Your task to perform on an android device: refresh tabs in the chrome app Image 0: 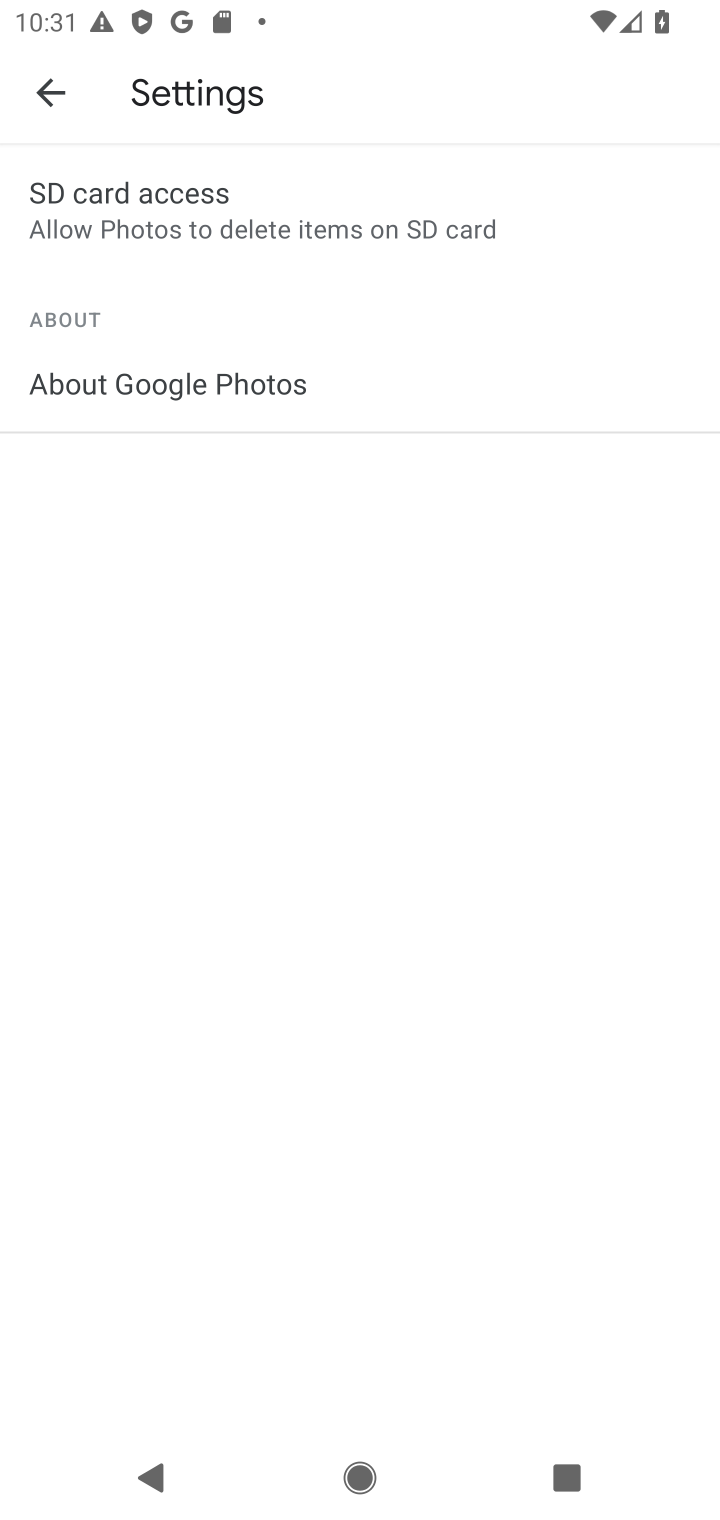
Step 0: press home button
Your task to perform on an android device: refresh tabs in the chrome app Image 1: 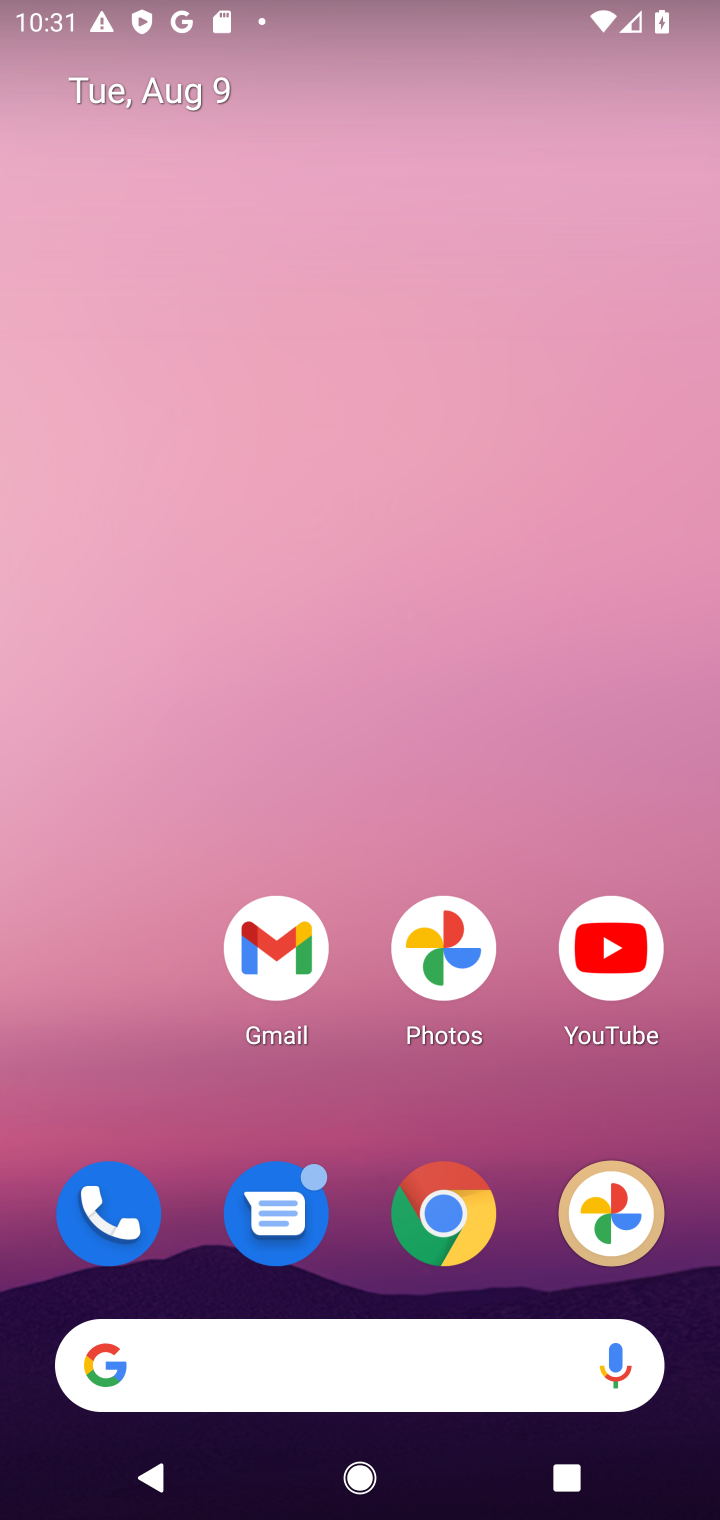
Step 1: click (440, 1203)
Your task to perform on an android device: refresh tabs in the chrome app Image 2: 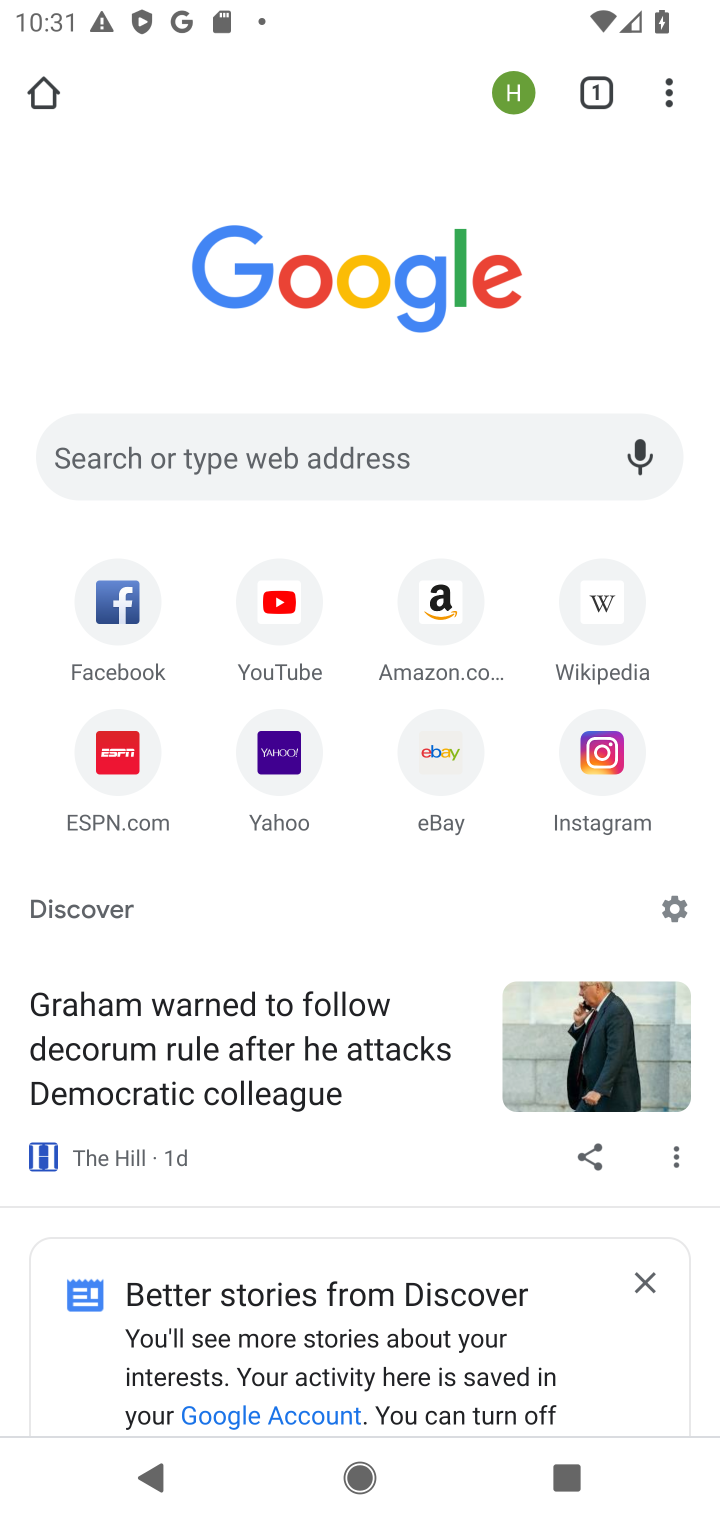
Step 2: click (685, 95)
Your task to perform on an android device: refresh tabs in the chrome app Image 3: 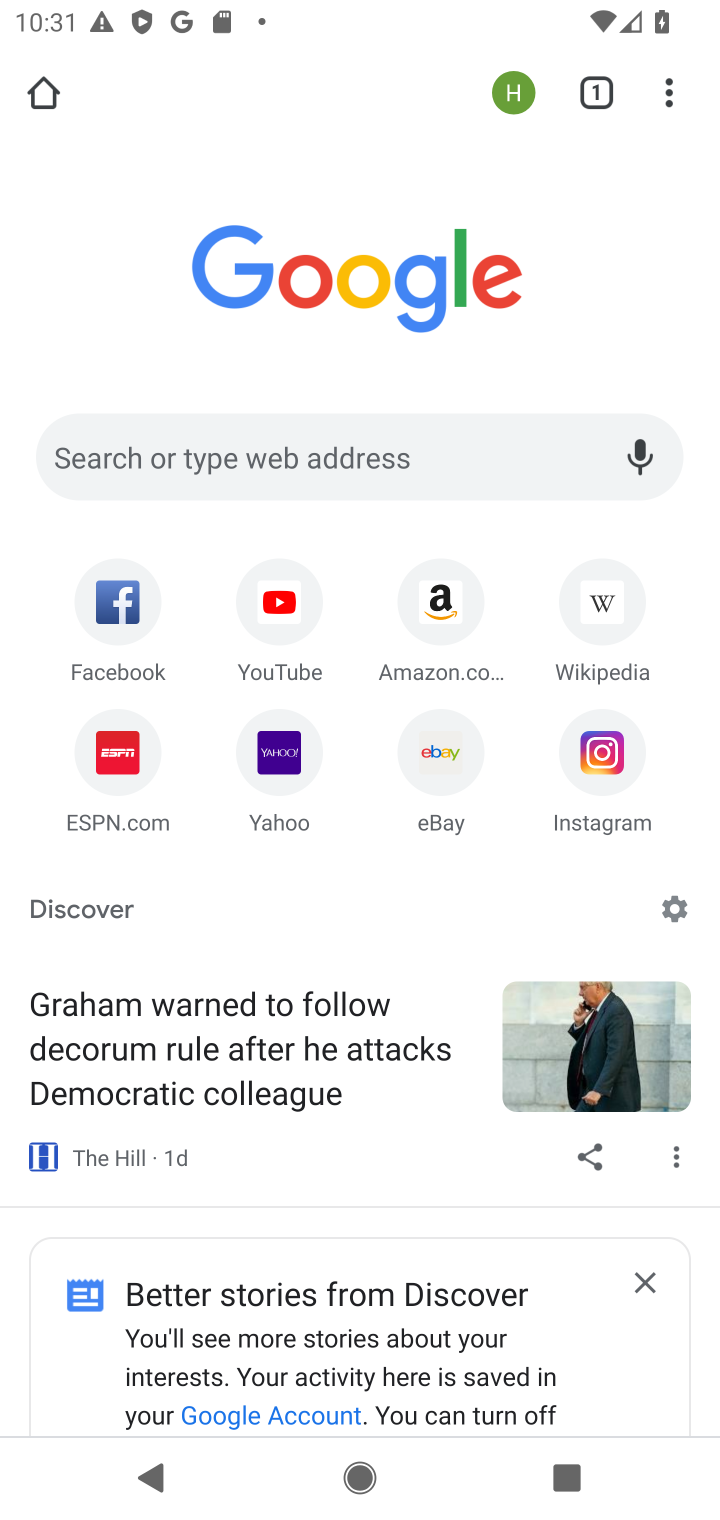
Step 3: click (678, 81)
Your task to perform on an android device: refresh tabs in the chrome app Image 4: 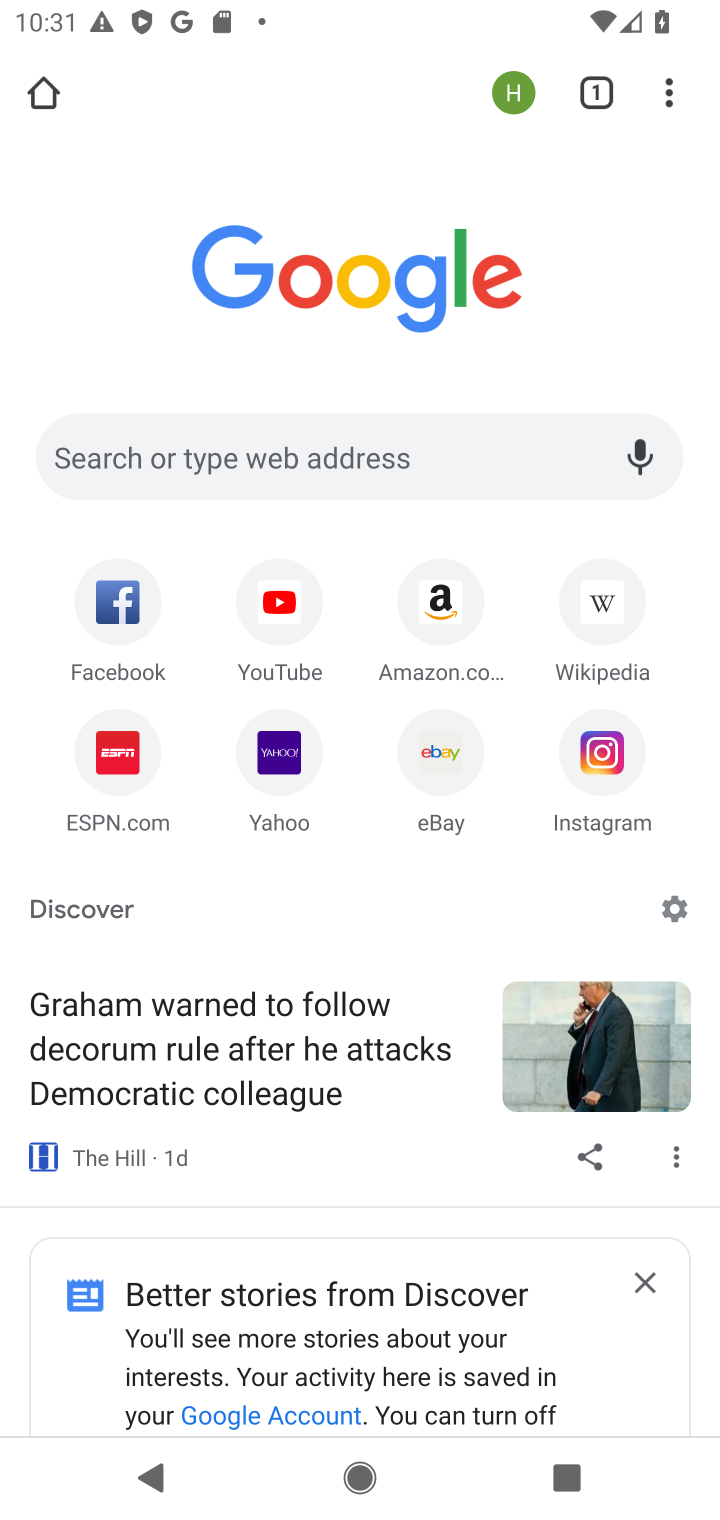
Step 4: task complete